Your task to perform on an android device: set the stopwatch Image 0: 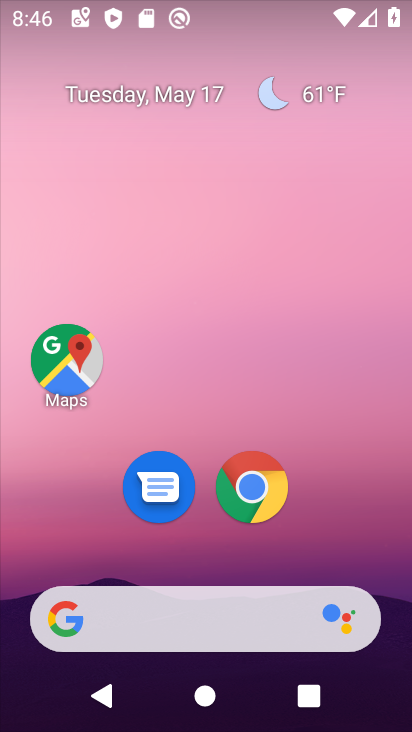
Step 0: press home button
Your task to perform on an android device: set the stopwatch Image 1: 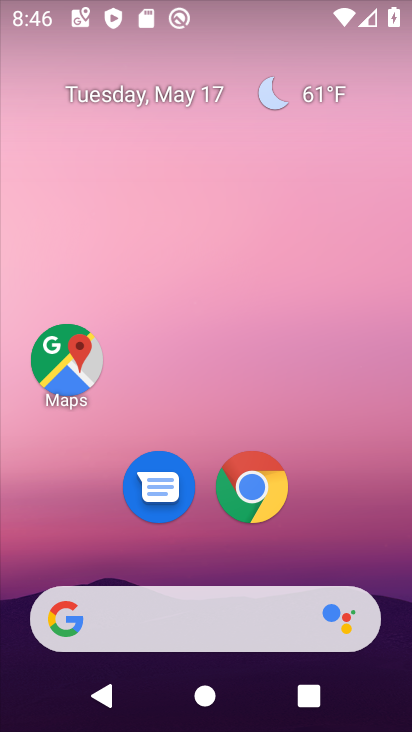
Step 1: drag from (173, 631) to (338, 29)
Your task to perform on an android device: set the stopwatch Image 2: 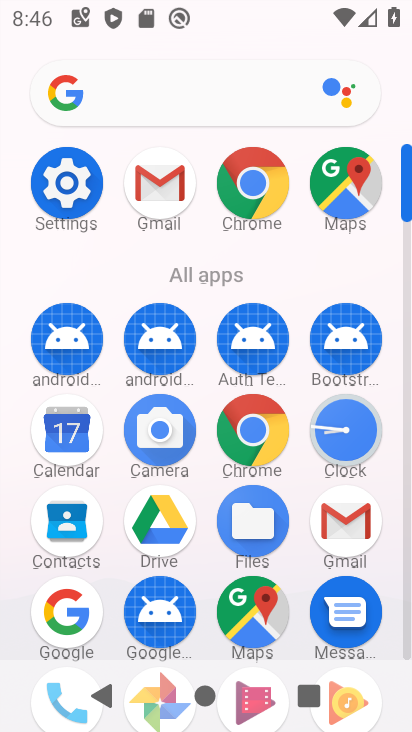
Step 2: click (347, 434)
Your task to perform on an android device: set the stopwatch Image 3: 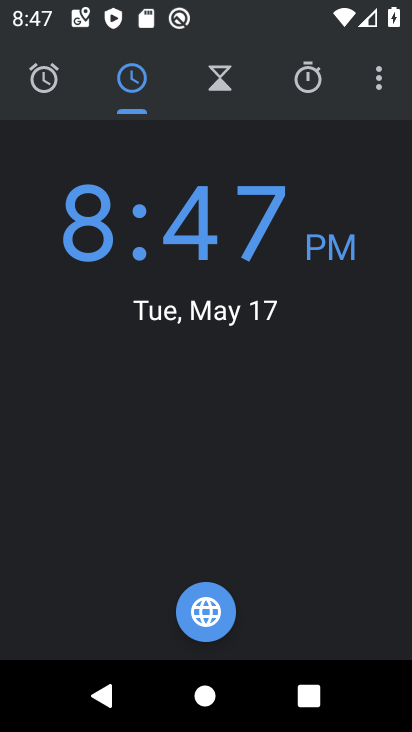
Step 3: click (311, 85)
Your task to perform on an android device: set the stopwatch Image 4: 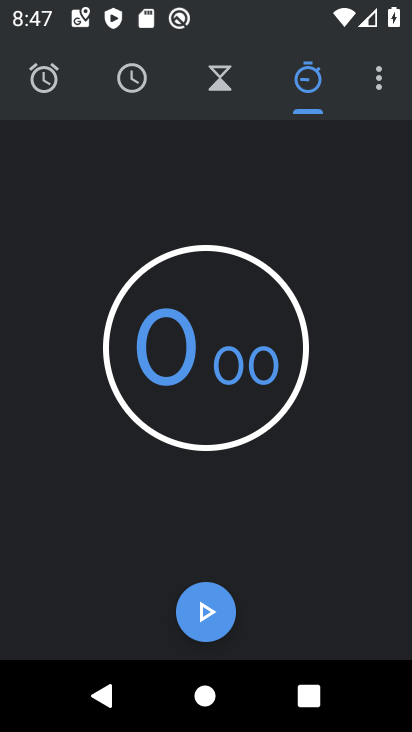
Step 4: click (231, 335)
Your task to perform on an android device: set the stopwatch Image 5: 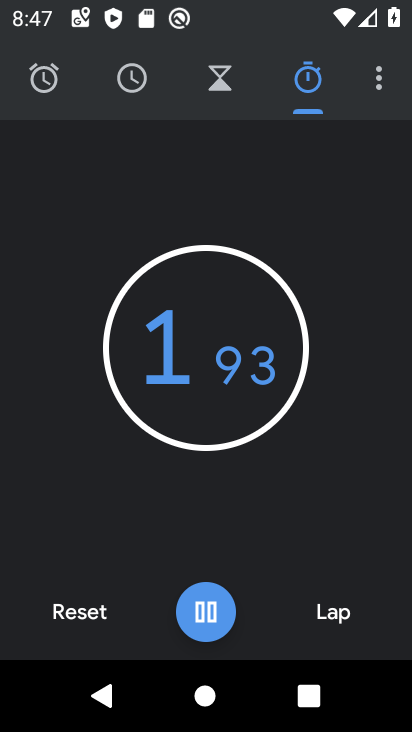
Step 5: click (231, 334)
Your task to perform on an android device: set the stopwatch Image 6: 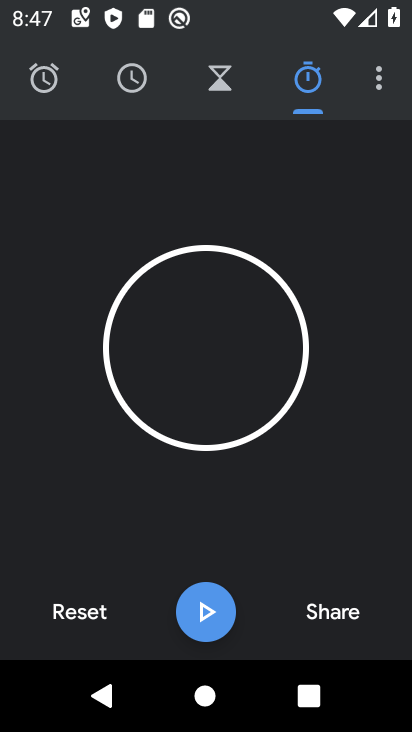
Step 6: task complete